Your task to perform on an android device: Toggle the flashlight Image 0: 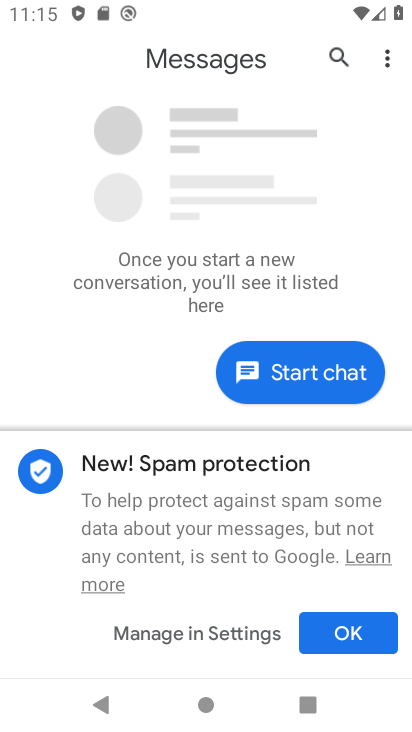
Step 0: drag from (229, 15) to (168, 510)
Your task to perform on an android device: Toggle the flashlight Image 1: 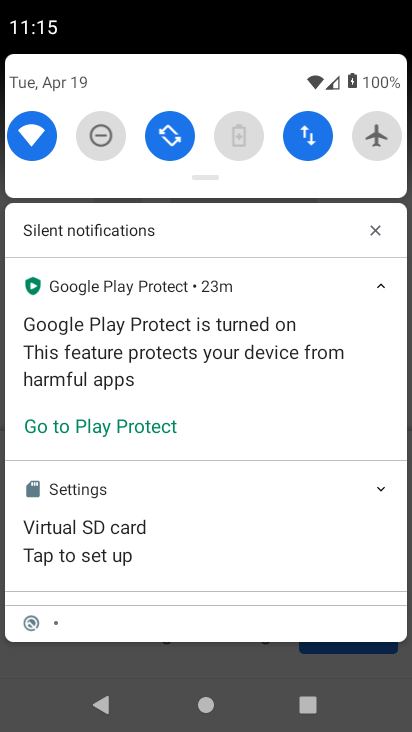
Step 1: click (168, 510)
Your task to perform on an android device: Toggle the flashlight Image 2: 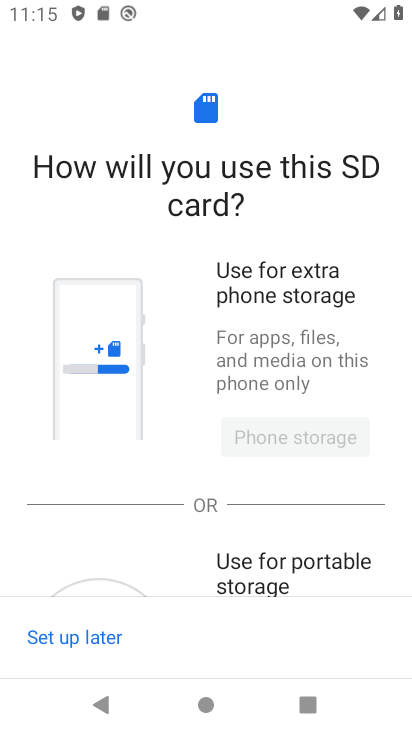
Step 2: drag from (268, 21) to (380, 530)
Your task to perform on an android device: Toggle the flashlight Image 3: 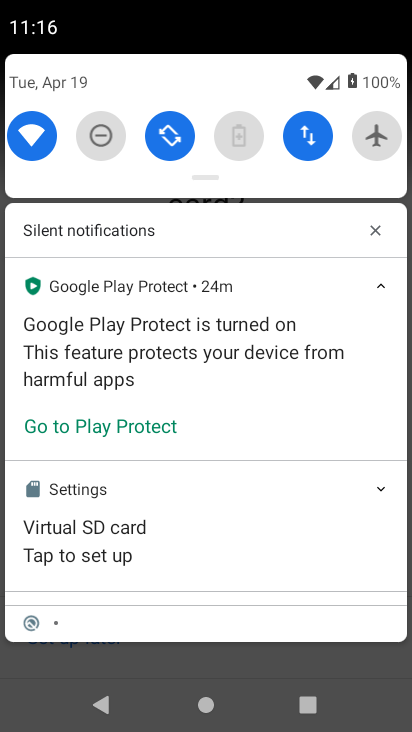
Step 3: drag from (218, 89) to (182, 718)
Your task to perform on an android device: Toggle the flashlight Image 4: 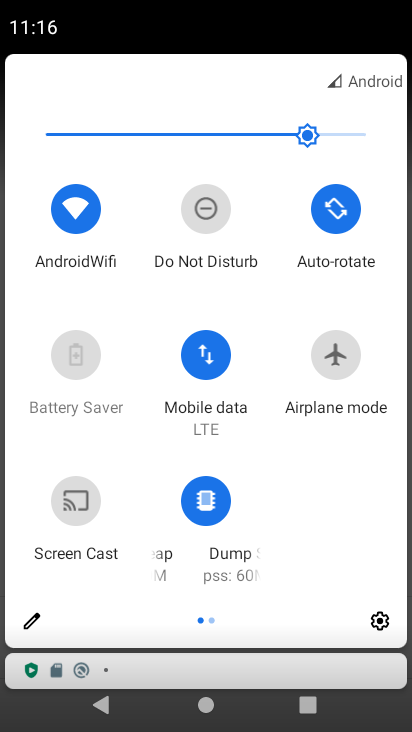
Step 4: click (385, 634)
Your task to perform on an android device: Toggle the flashlight Image 5: 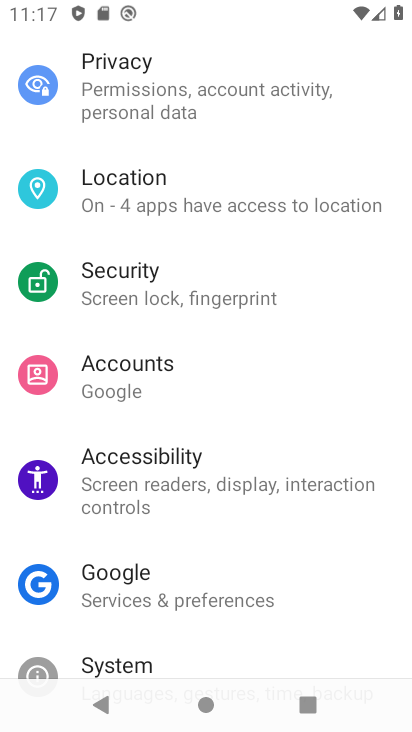
Step 5: task complete